Your task to perform on an android device: Do I have any events today? Image 0: 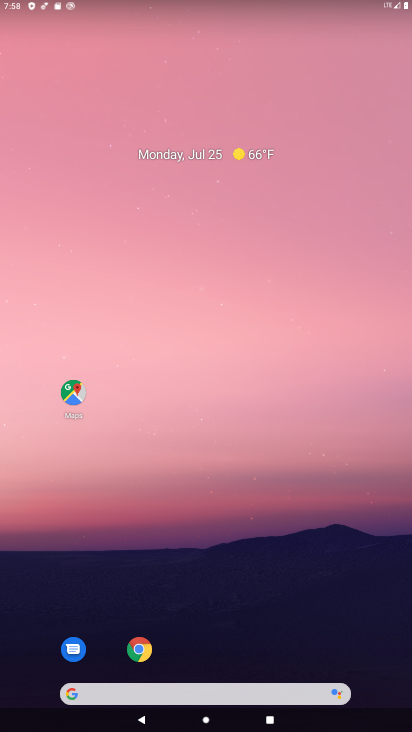
Step 0: drag from (273, 649) to (185, 204)
Your task to perform on an android device: Do I have any events today? Image 1: 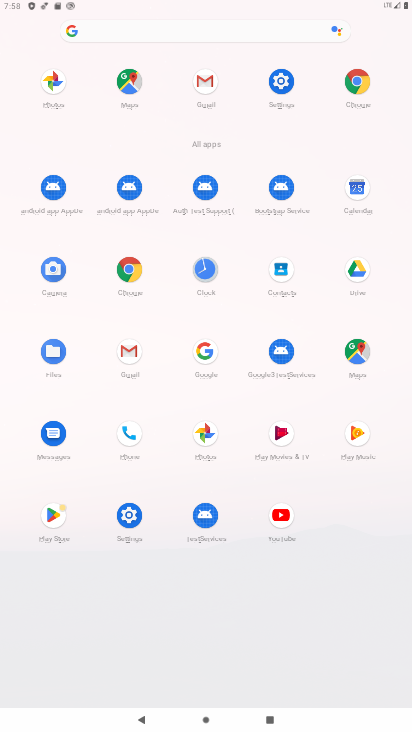
Step 1: click (358, 192)
Your task to perform on an android device: Do I have any events today? Image 2: 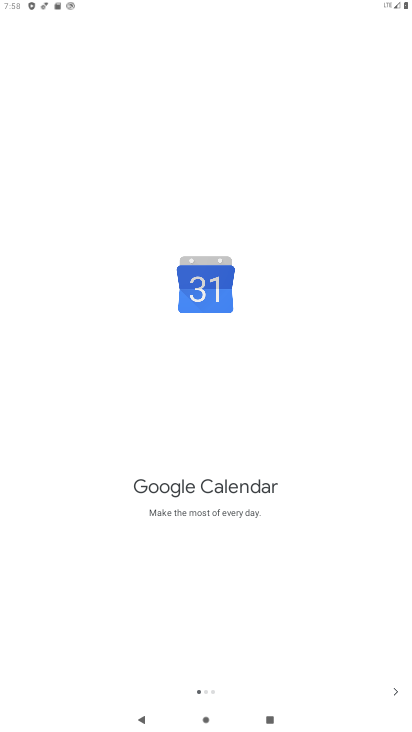
Step 2: click (396, 692)
Your task to perform on an android device: Do I have any events today? Image 3: 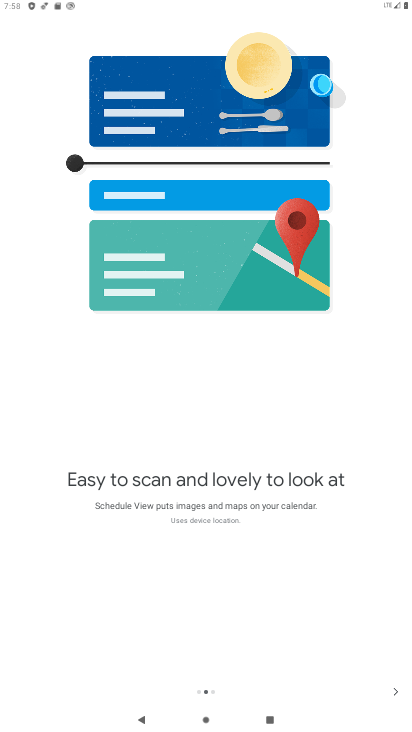
Step 3: click (391, 697)
Your task to perform on an android device: Do I have any events today? Image 4: 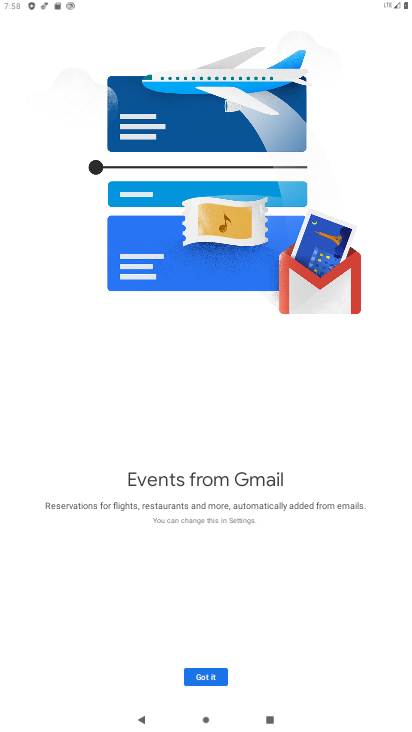
Step 4: click (216, 679)
Your task to perform on an android device: Do I have any events today? Image 5: 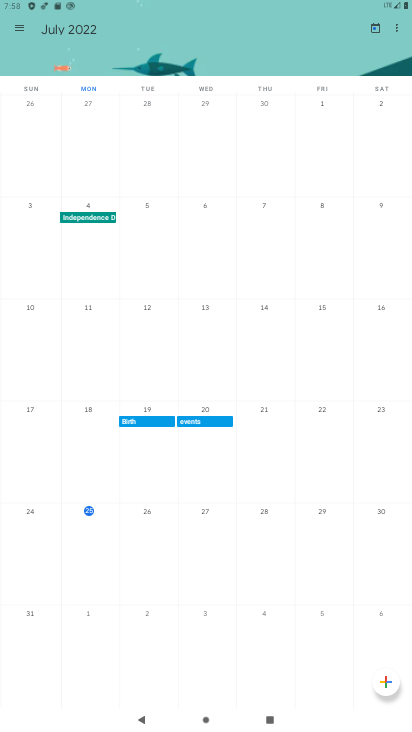
Step 5: click (14, 27)
Your task to perform on an android device: Do I have any events today? Image 6: 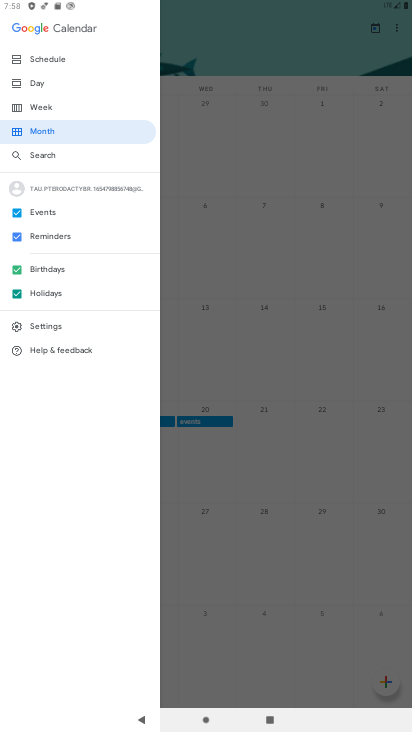
Step 6: click (15, 292)
Your task to perform on an android device: Do I have any events today? Image 7: 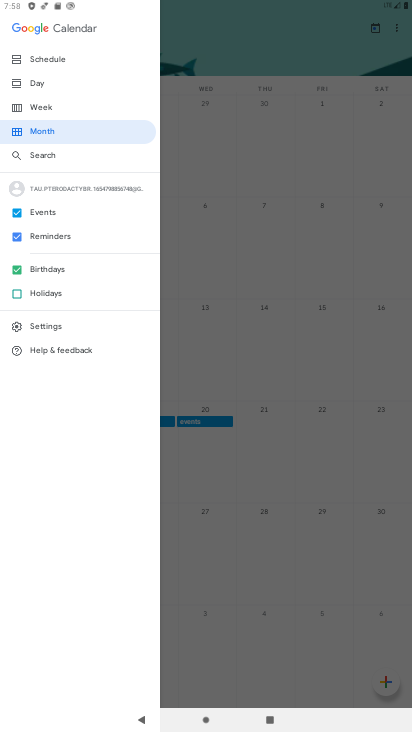
Step 7: click (17, 264)
Your task to perform on an android device: Do I have any events today? Image 8: 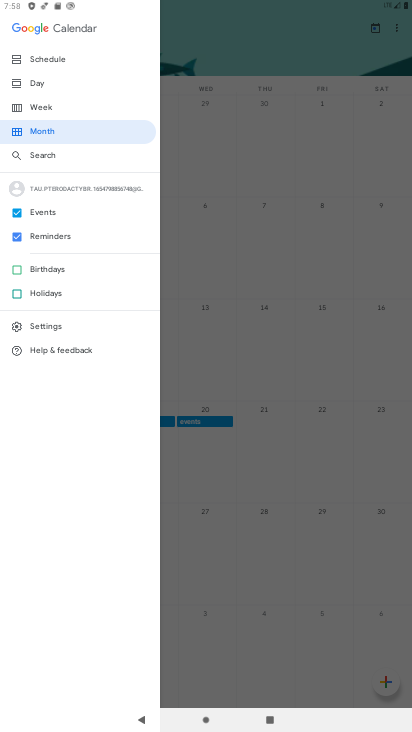
Step 8: click (21, 234)
Your task to perform on an android device: Do I have any events today? Image 9: 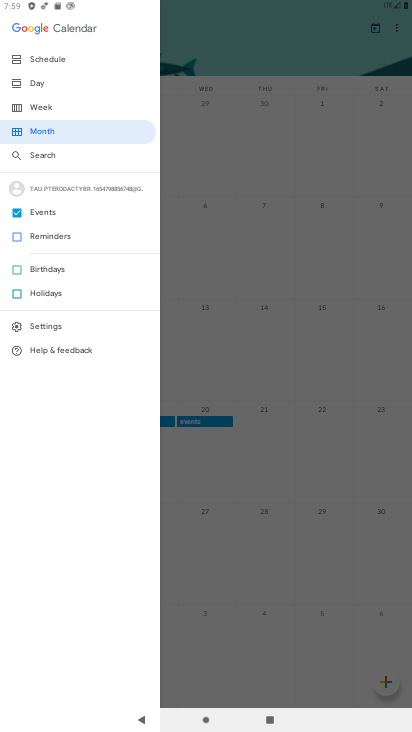
Step 9: click (51, 85)
Your task to perform on an android device: Do I have any events today? Image 10: 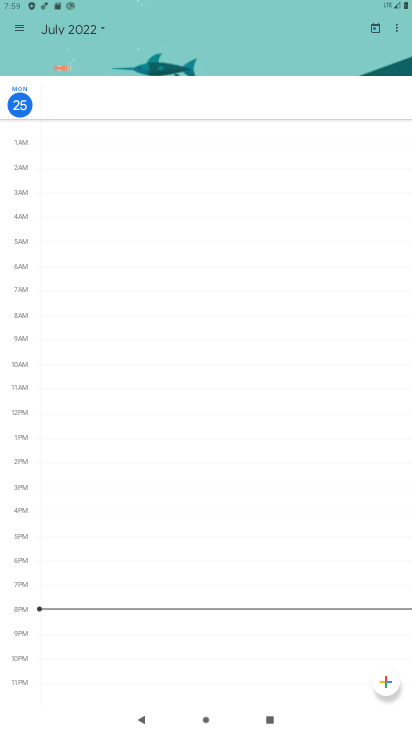
Step 10: task complete